Your task to perform on an android device: Toggle notifications for the Google Maps app Image 0: 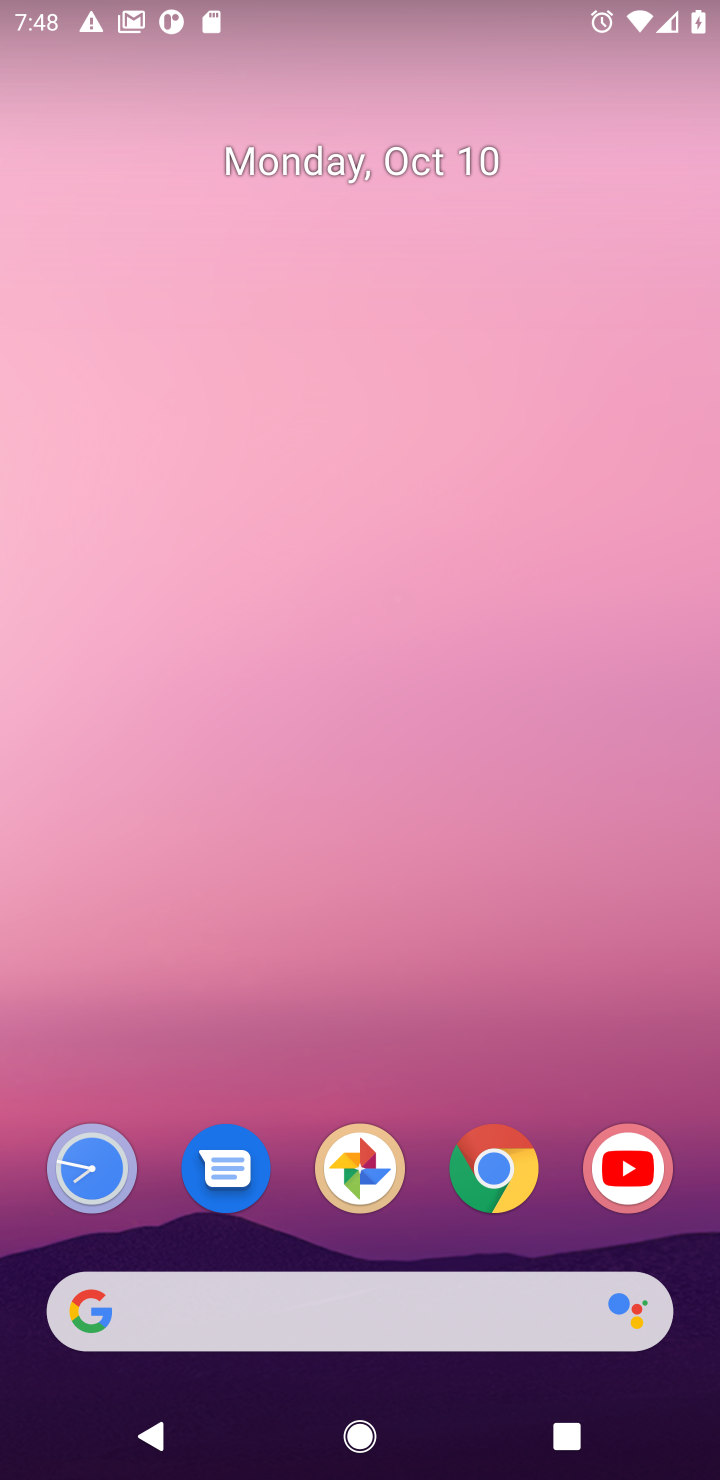
Step 0: drag from (432, 1114) to (333, 68)
Your task to perform on an android device: Toggle notifications for the Google Maps app Image 1: 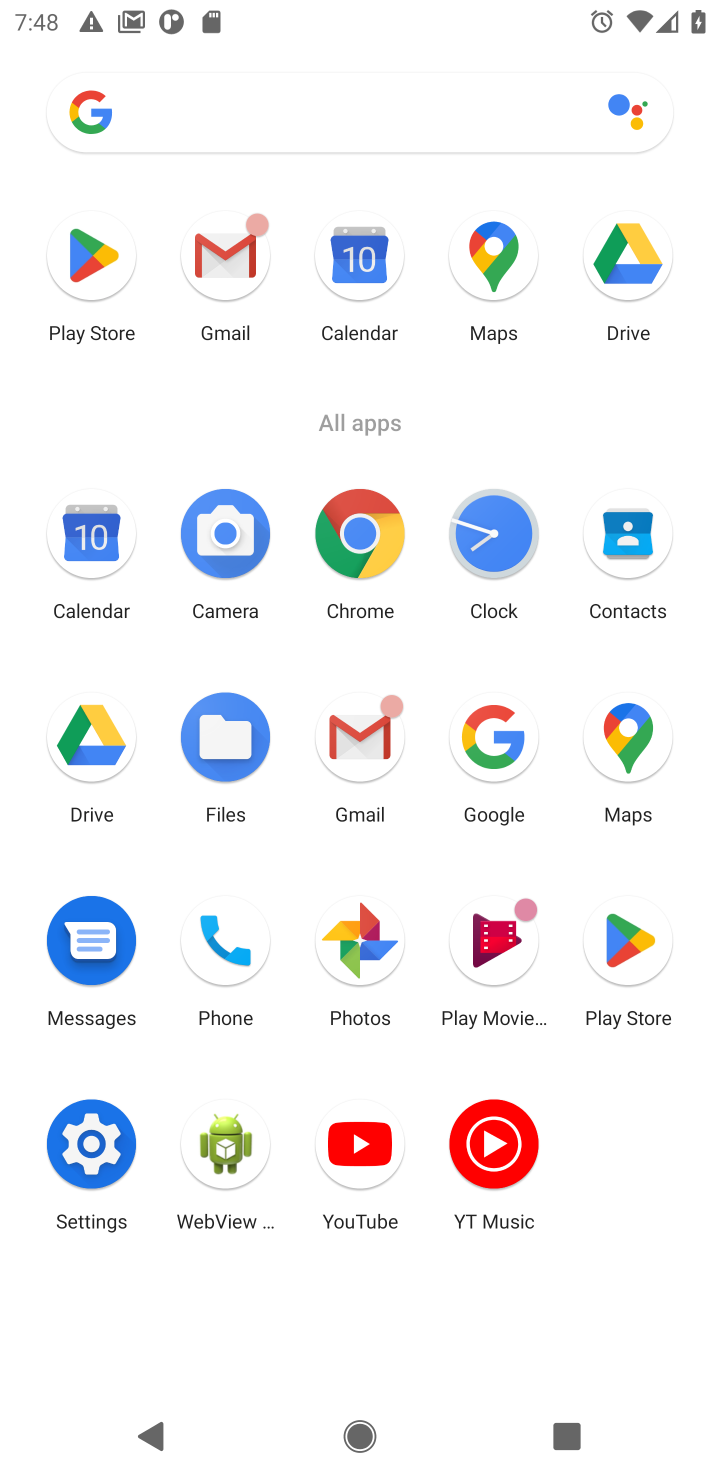
Step 1: click (491, 251)
Your task to perform on an android device: Toggle notifications for the Google Maps app Image 2: 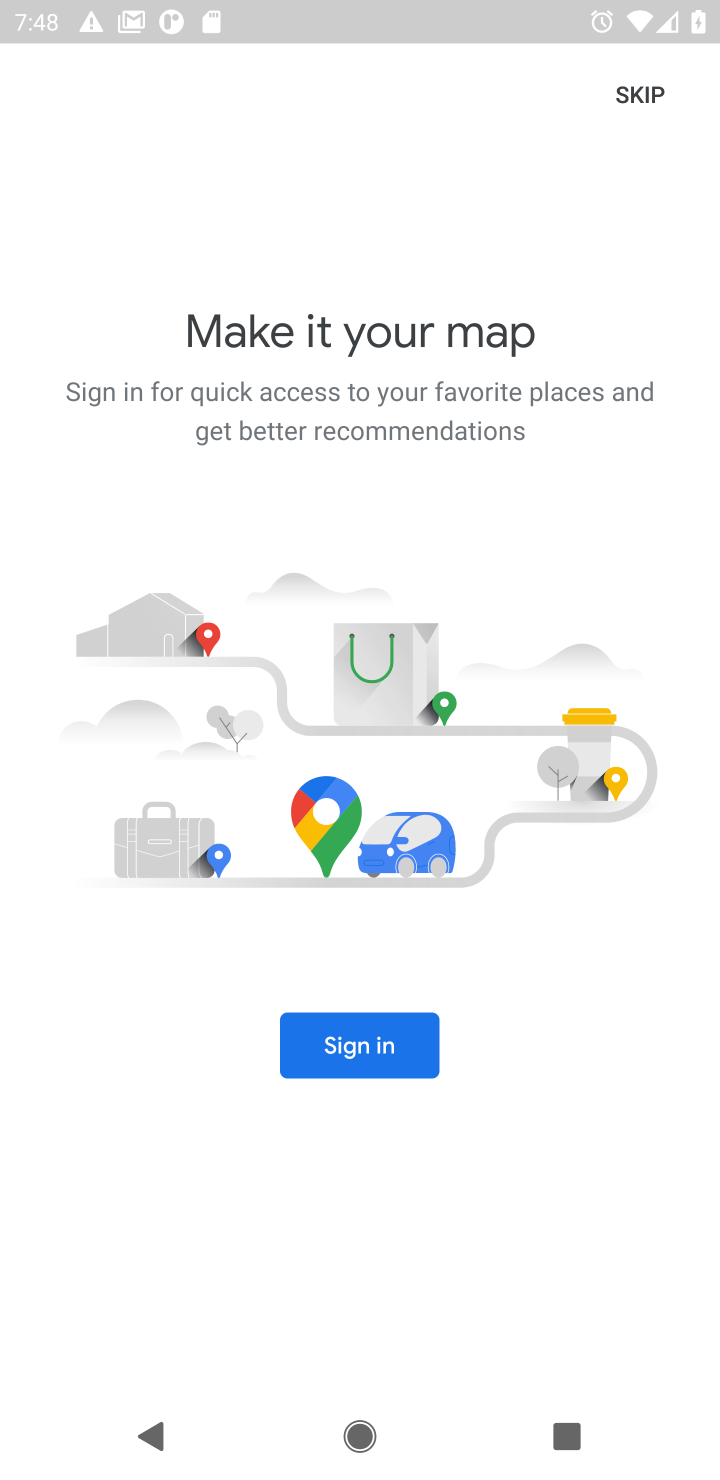
Step 2: click (624, 105)
Your task to perform on an android device: Toggle notifications for the Google Maps app Image 3: 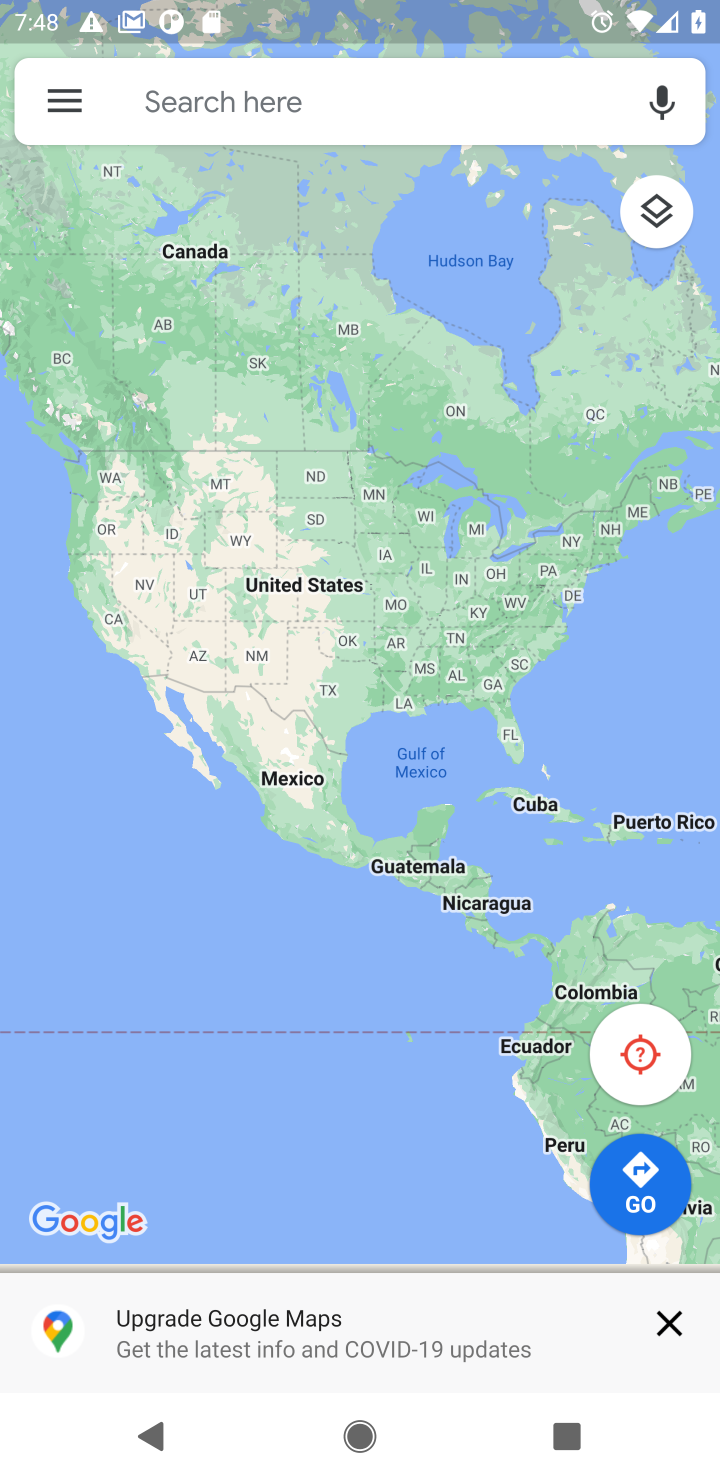
Step 3: click (61, 115)
Your task to perform on an android device: Toggle notifications for the Google Maps app Image 4: 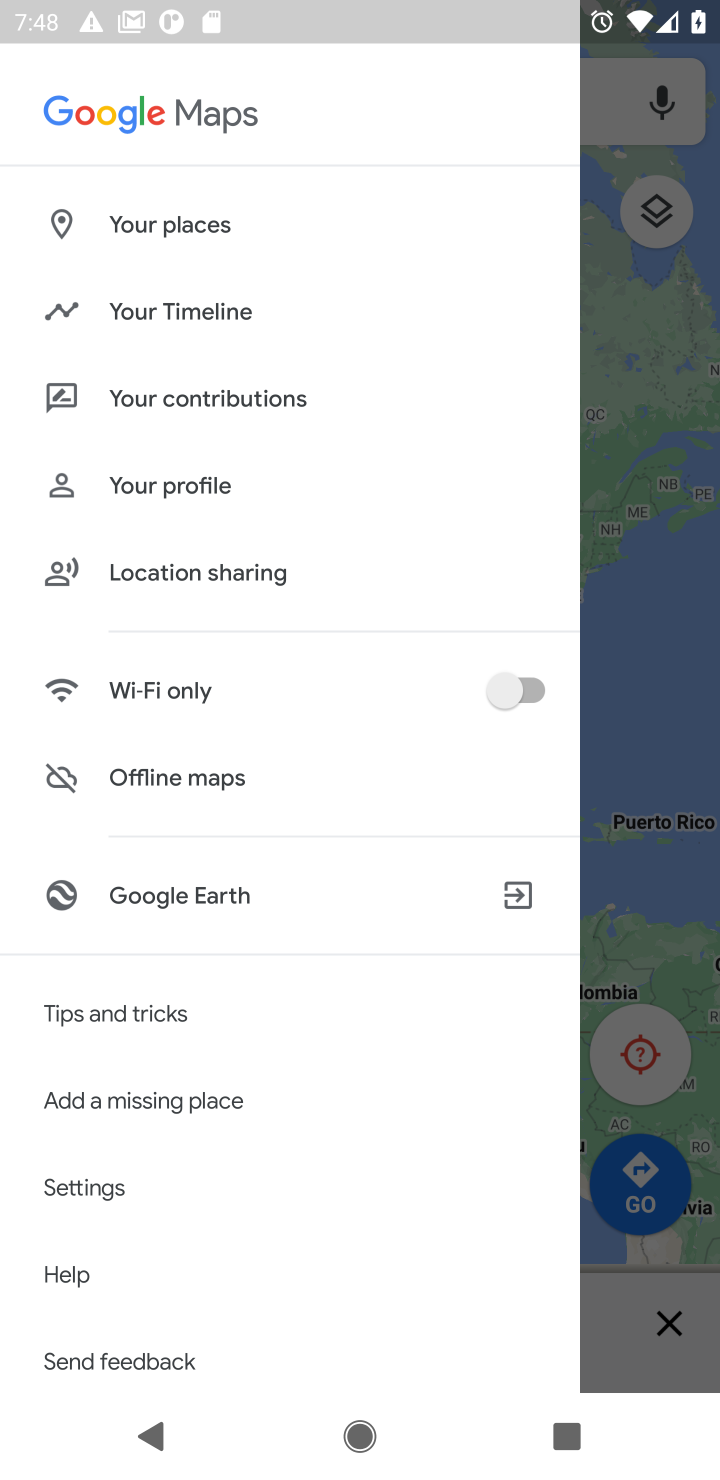
Step 4: drag from (217, 982) to (180, 530)
Your task to perform on an android device: Toggle notifications for the Google Maps app Image 5: 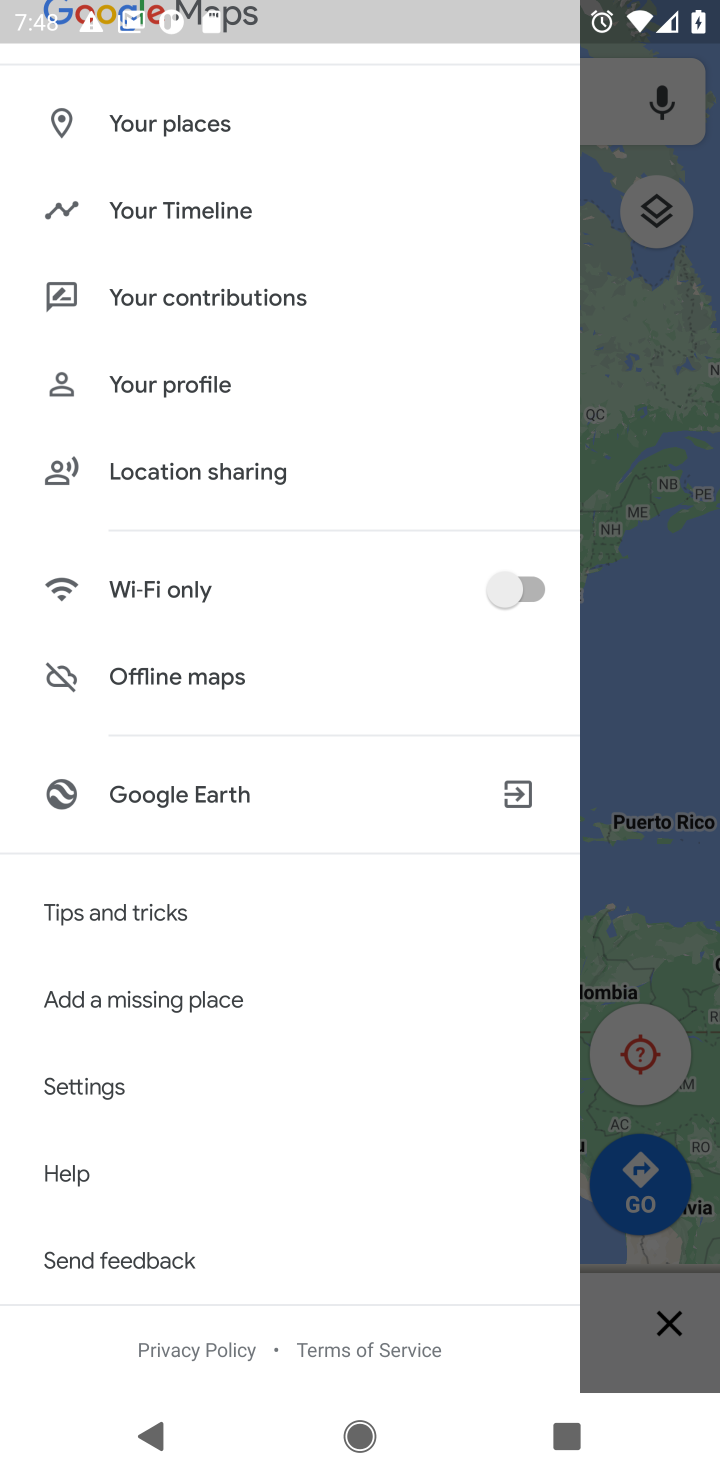
Step 5: click (91, 1087)
Your task to perform on an android device: Toggle notifications for the Google Maps app Image 6: 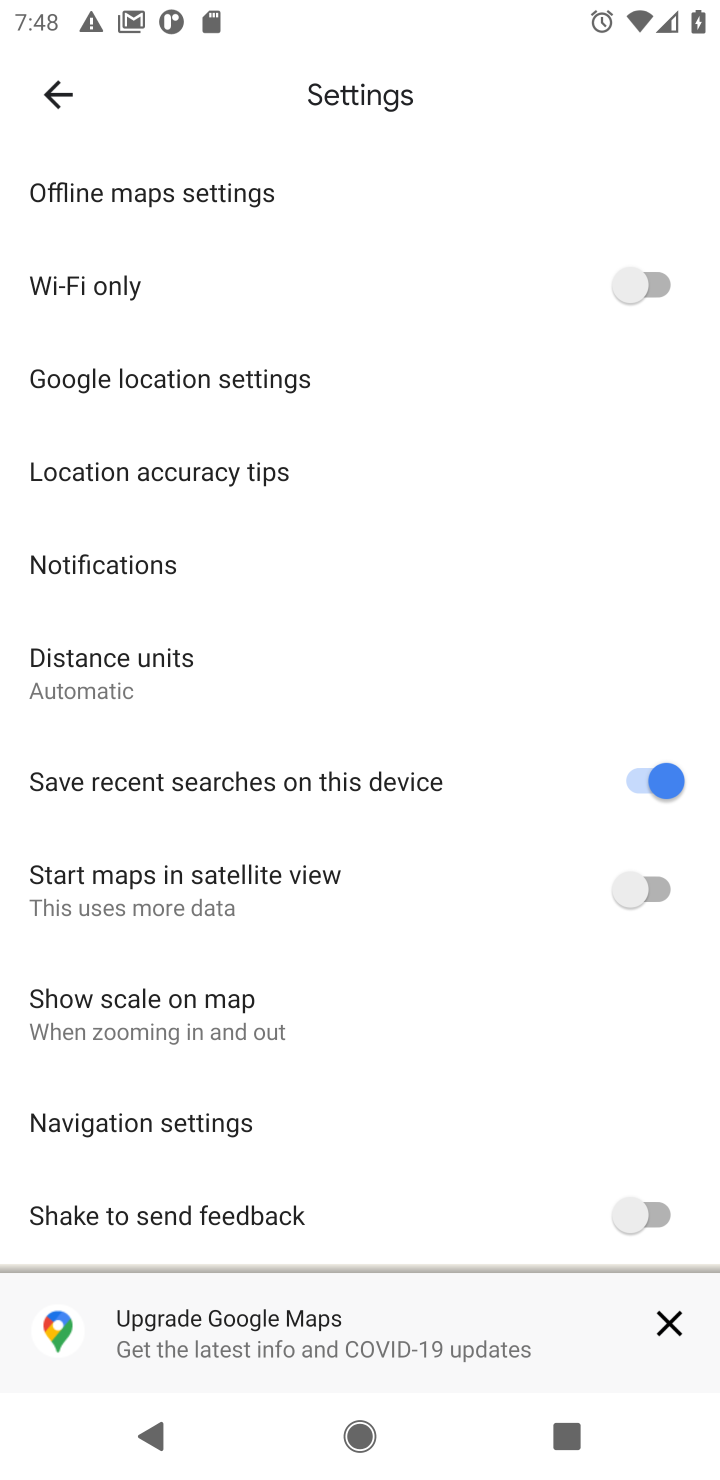
Step 6: click (87, 565)
Your task to perform on an android device: Toggle notifications for the Google Maps app Image 7: 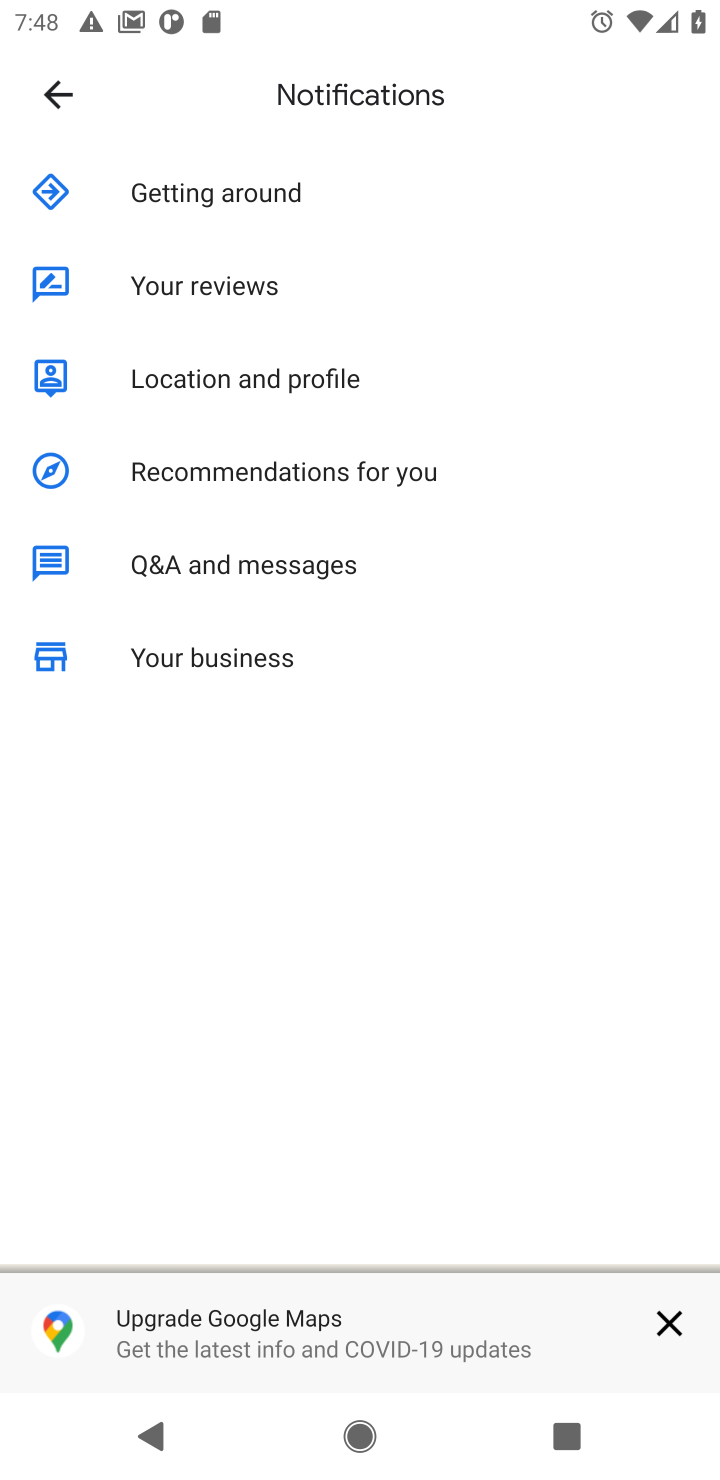
Step 7: click (54, 93)
Your task to perform on an android device: Toggle notifications for the Google Maps app Image 8: 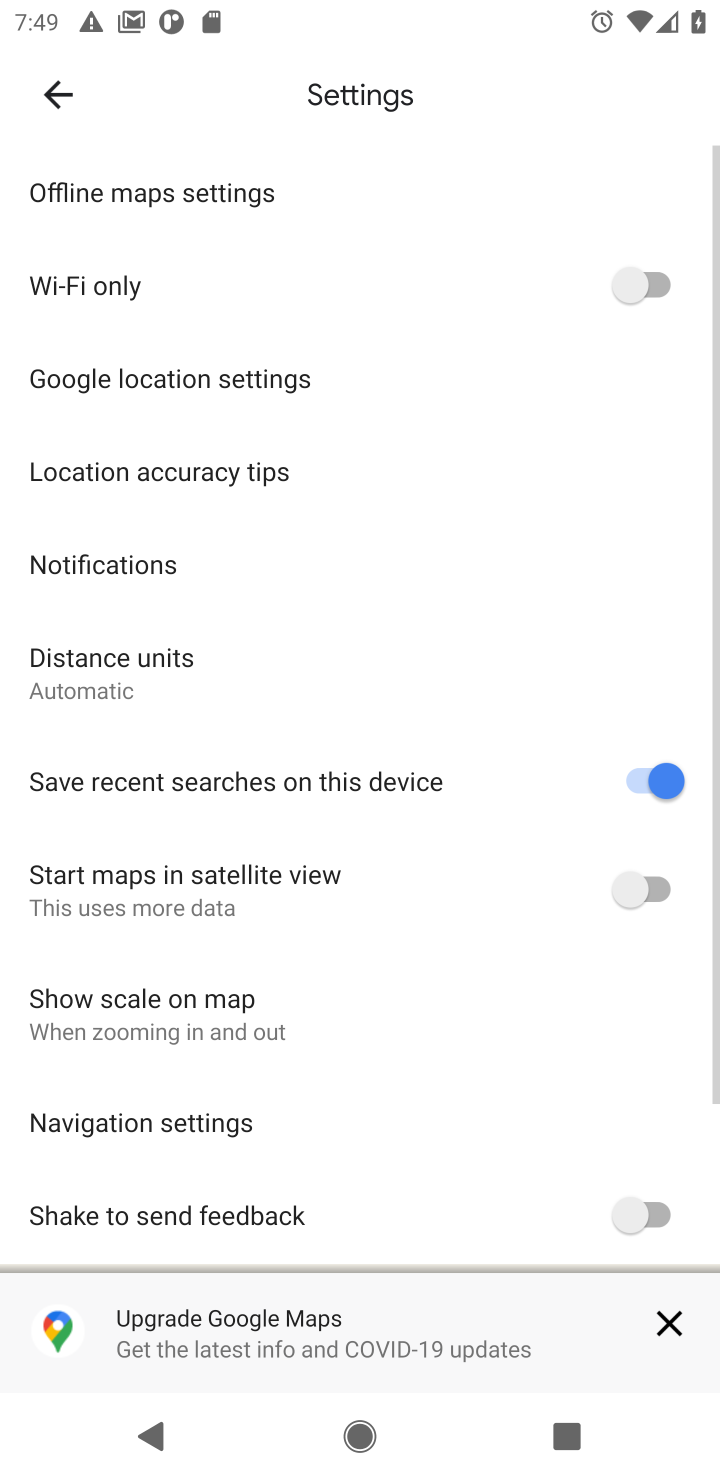
Step 8: drag from (155, 1003) to (163, 438)
Your task to perform on an android device: Toggle notifications for the Google Maps app Image 9: 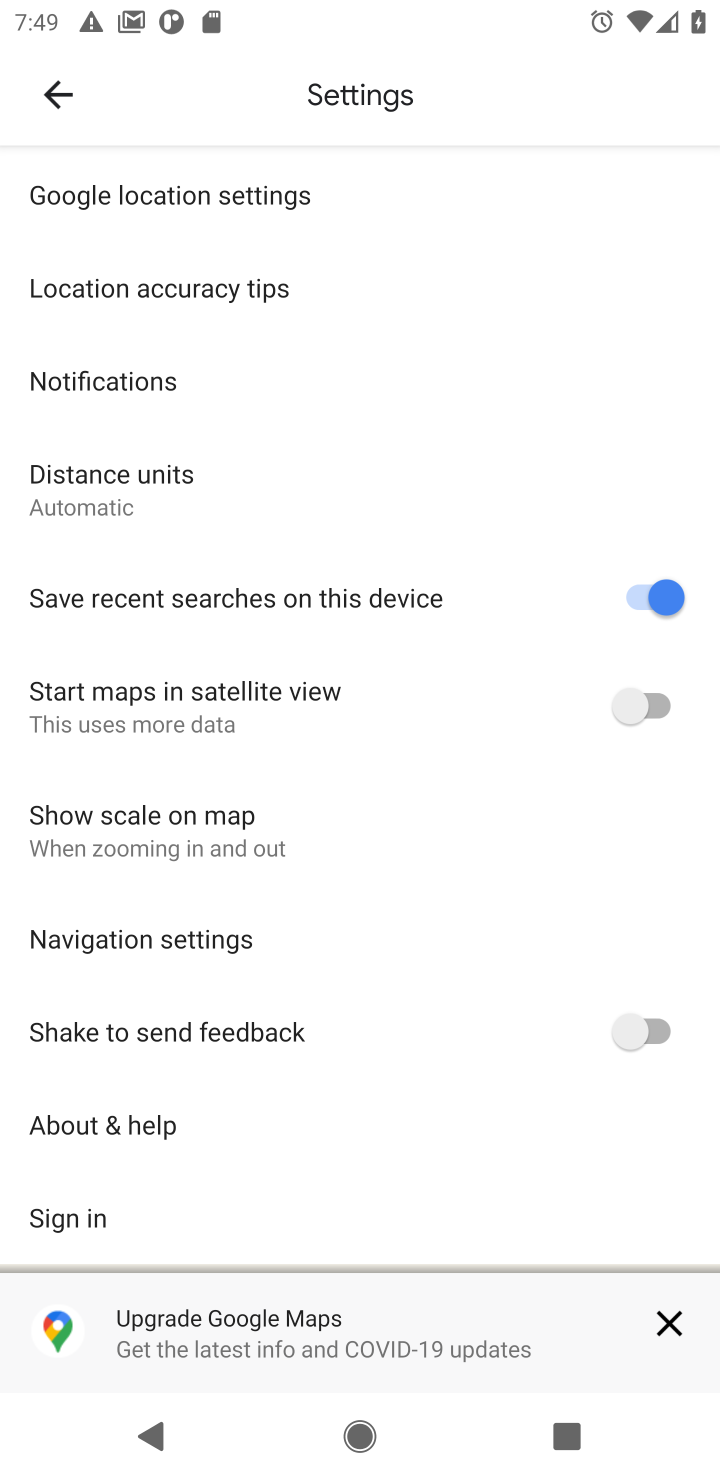
Step 9: drag from (125, 1087) to (163, 573)
Your task to perform on an android device: Toggle notifications for the Google Maps app Image 10: 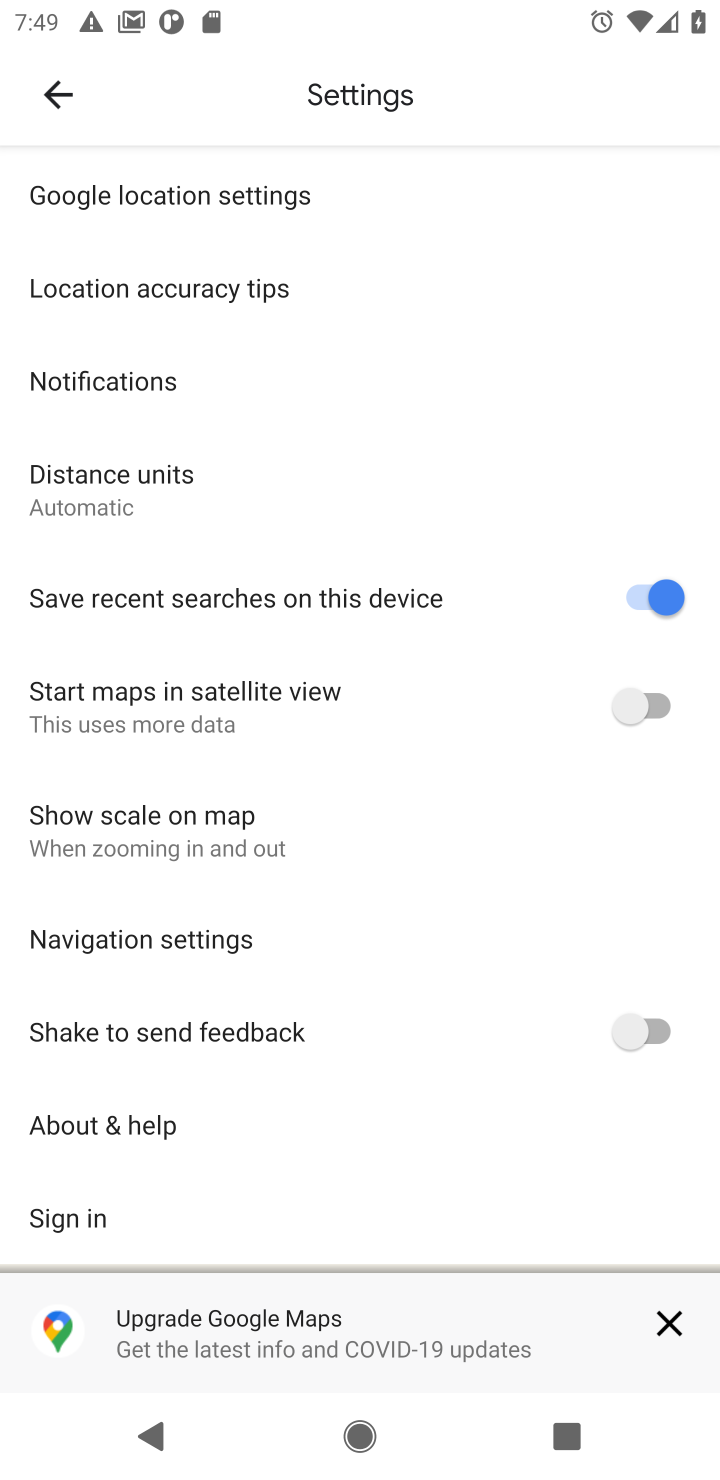
Step 10: drag from (161, 429) to (171, 1201)
Your task to perform on an android device: Toggle notifications for the Google Maps app Image 11: 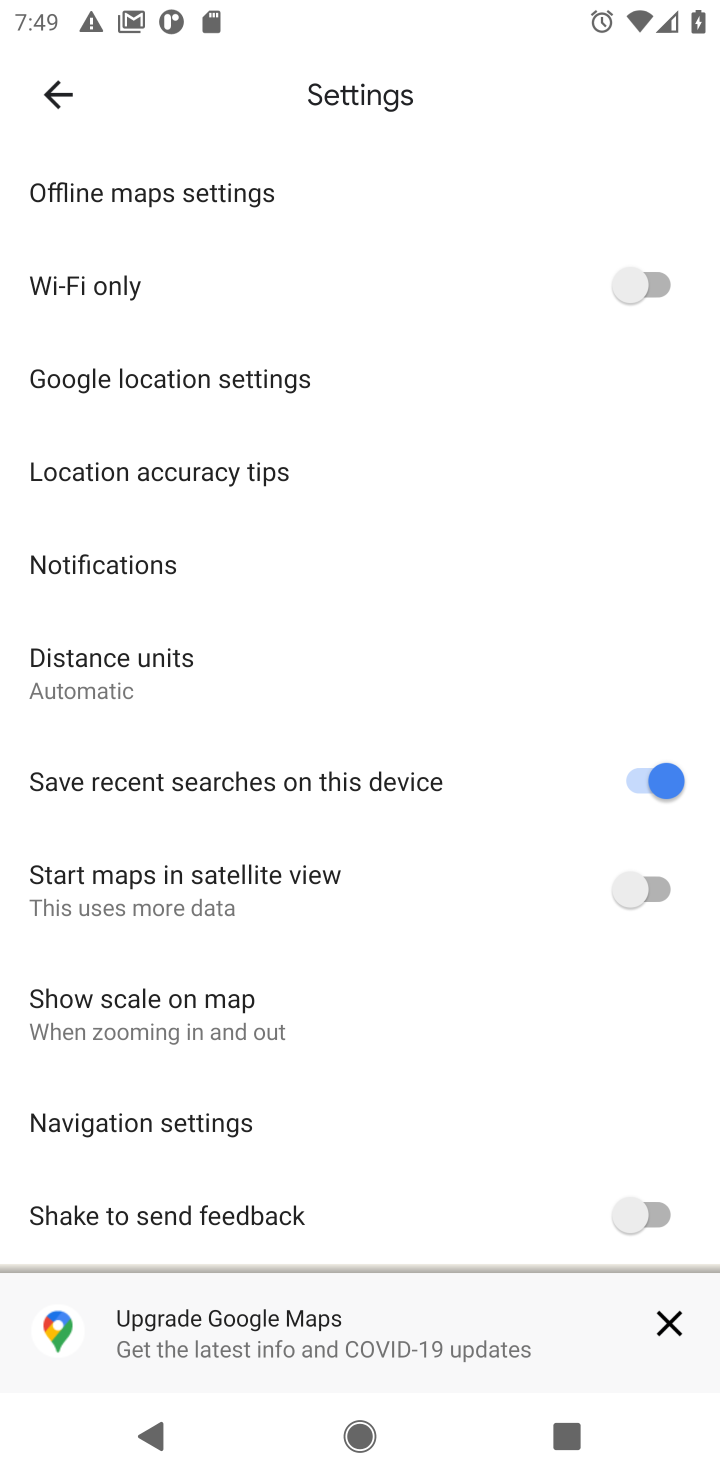
Step 11: click (53, 96)
Your task to perform on an android device: Toggle notifications for the Google Maps app Image 12: 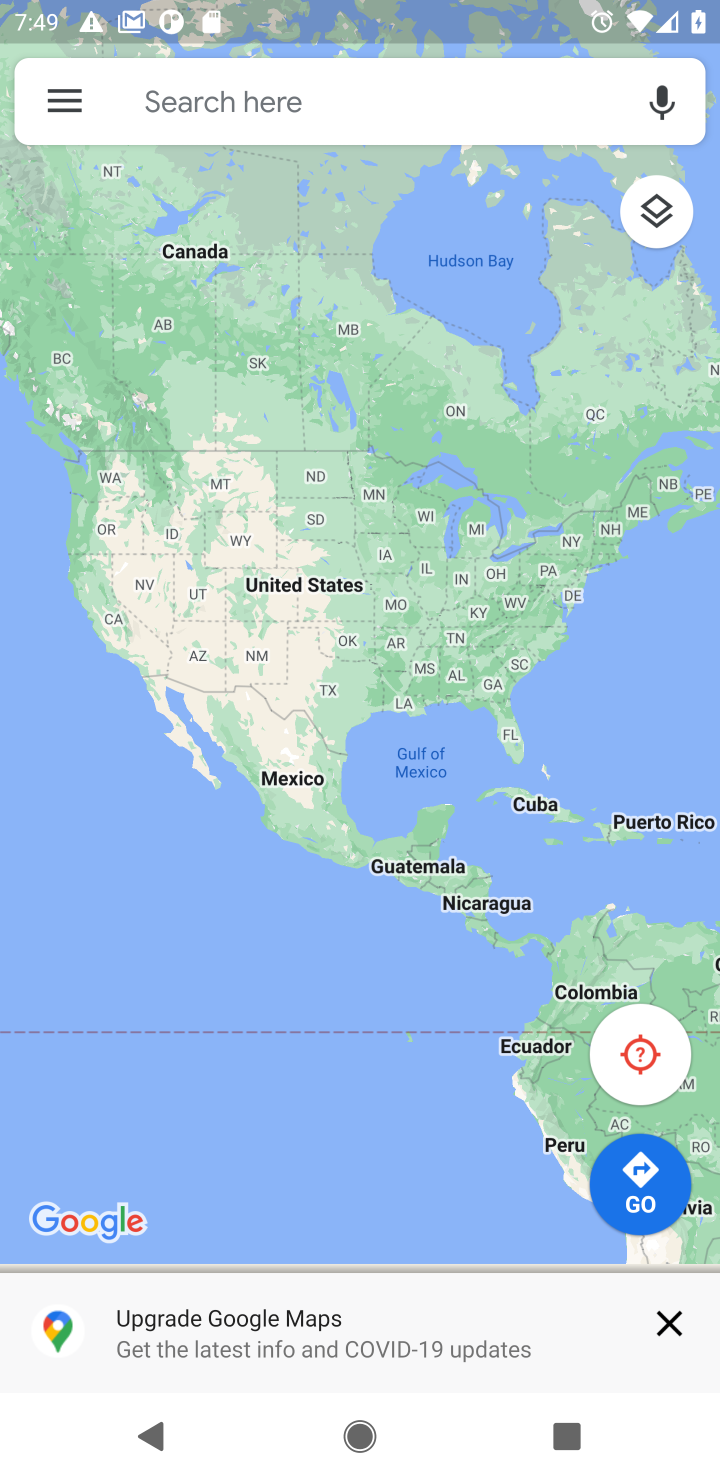
Step 12: click (66, 99)
Your task to perform on an android device: Toggle notifications for the Google Maps app Image 13: 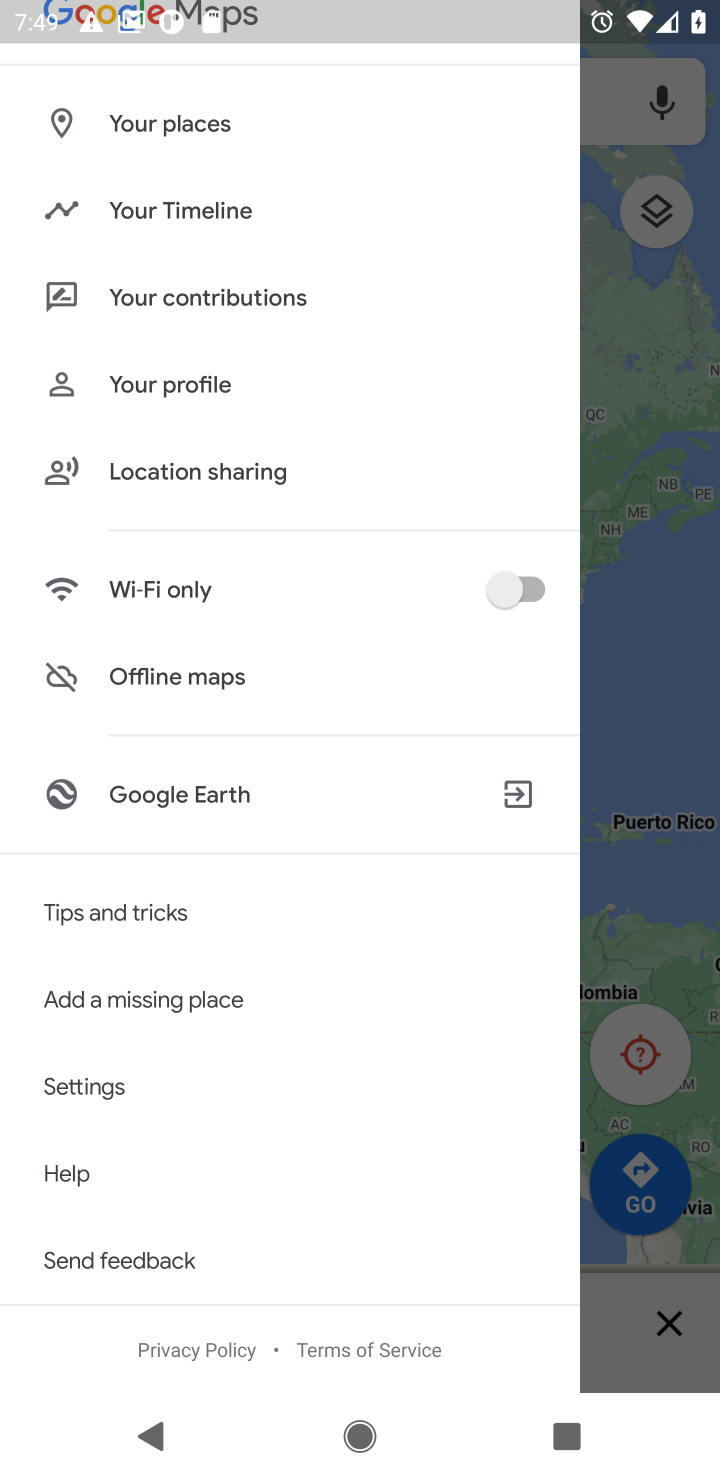
Step 13: click (194, 206)
Your task to perform on an android device: Toggle notifications for the Google Maps app Image 14: 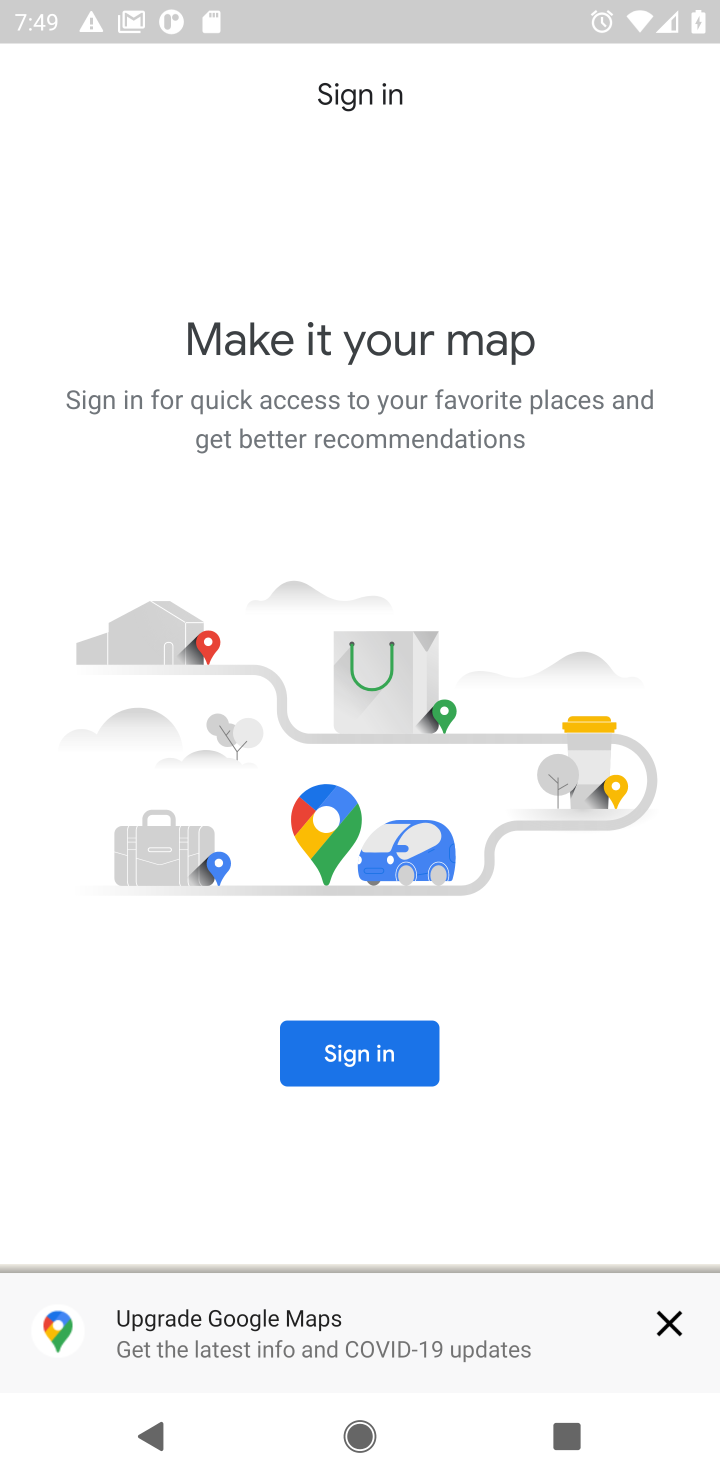
Step 14: click (365, 100)
Your task to perform on an android device: Toggle notifications for the Google Maps app Image 15: 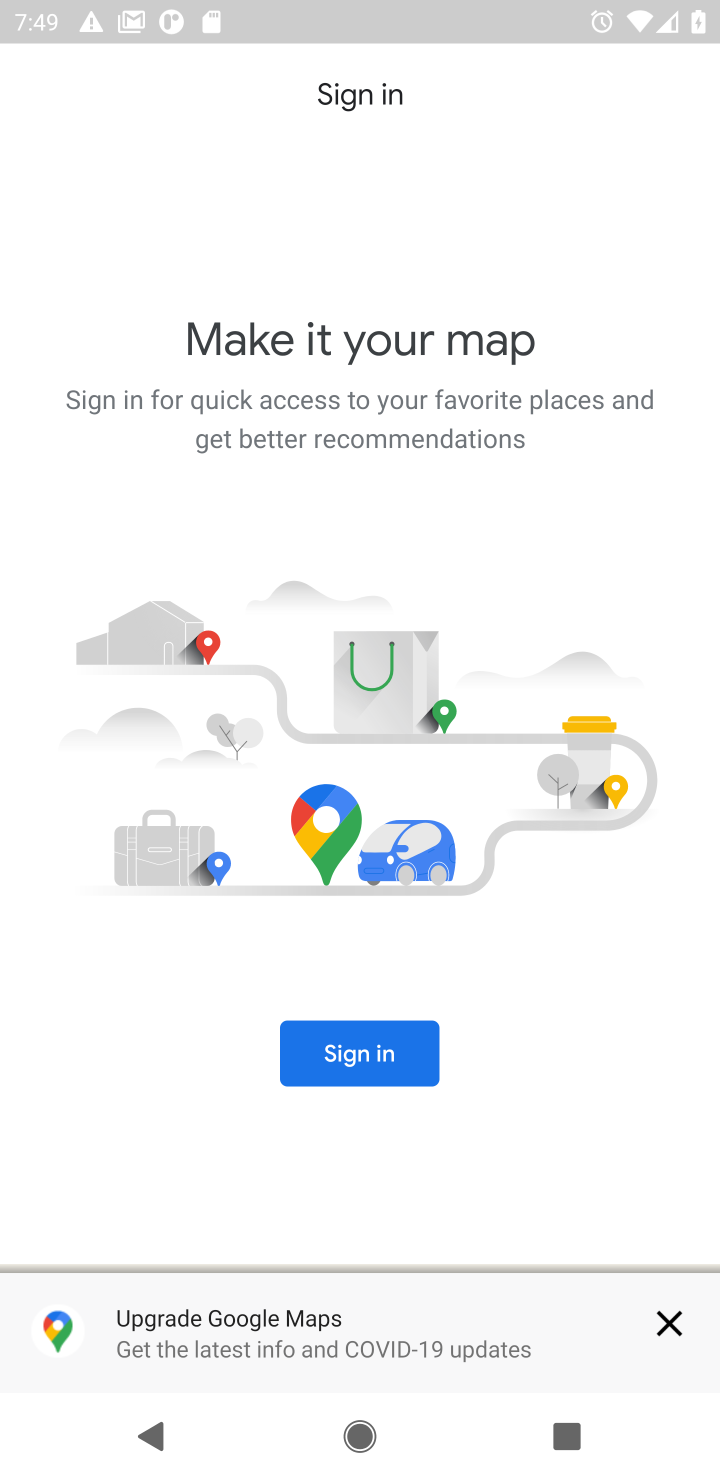
Step 15: click (332, 94)
Your task to perform on an android device: Toggle notifications for the Google Maps app Image 16: 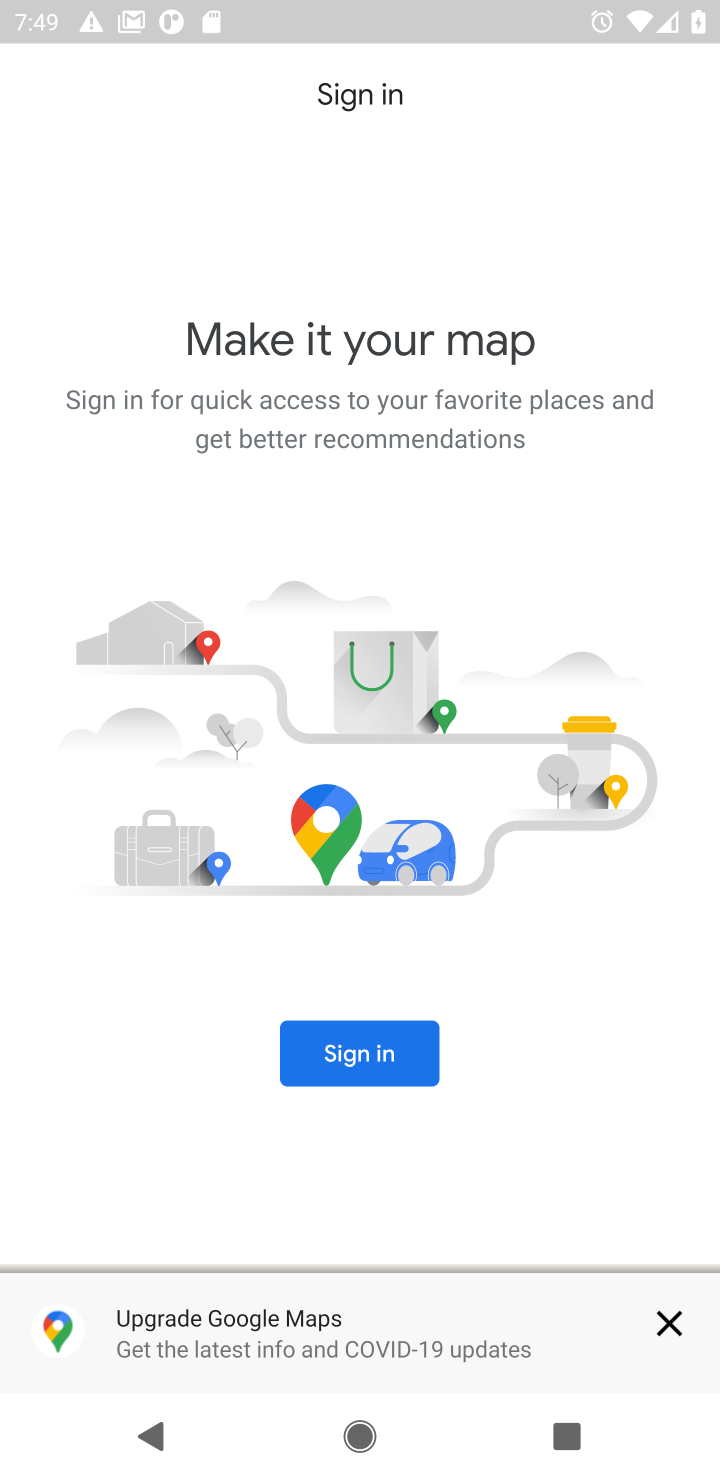
Step 16: click (672, 1331)
Your task to perform on an android device: Toggle notifications for the Google Maps app Image 17: 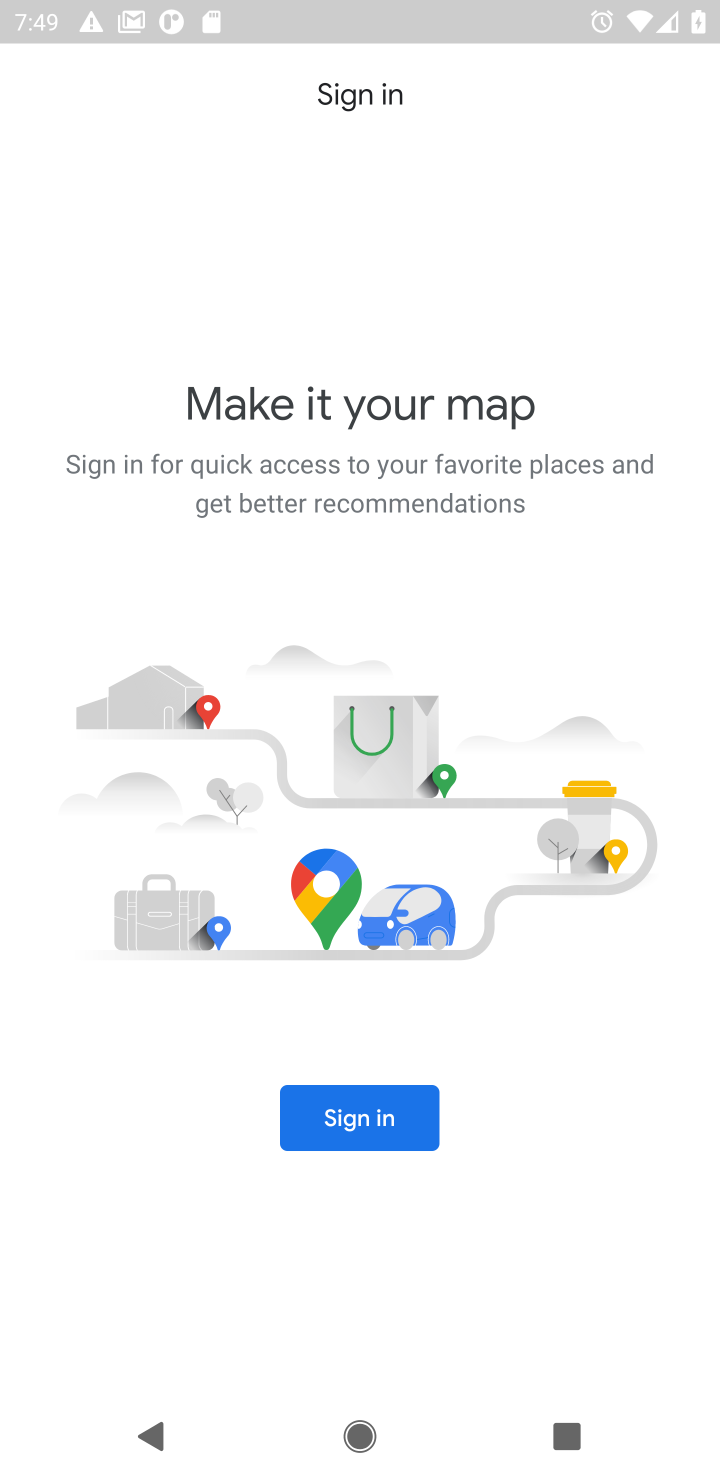
Step 17: press back button
Your task to perform on an android device: Toggle notifications for the Google Maps app Image 18: 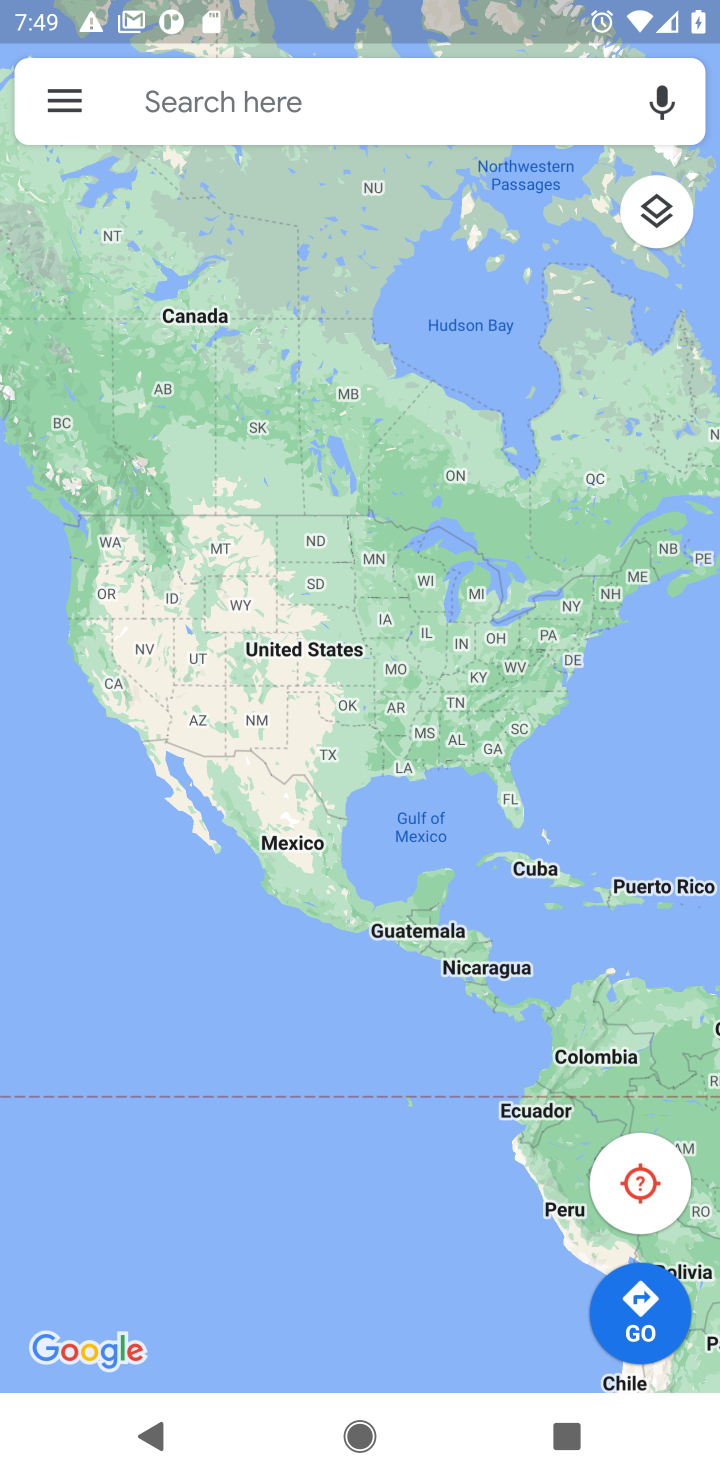
Step 18: click (64, 110)
Your task to perform on an android device: Toggle notifications for the Google Maps app Image 19: 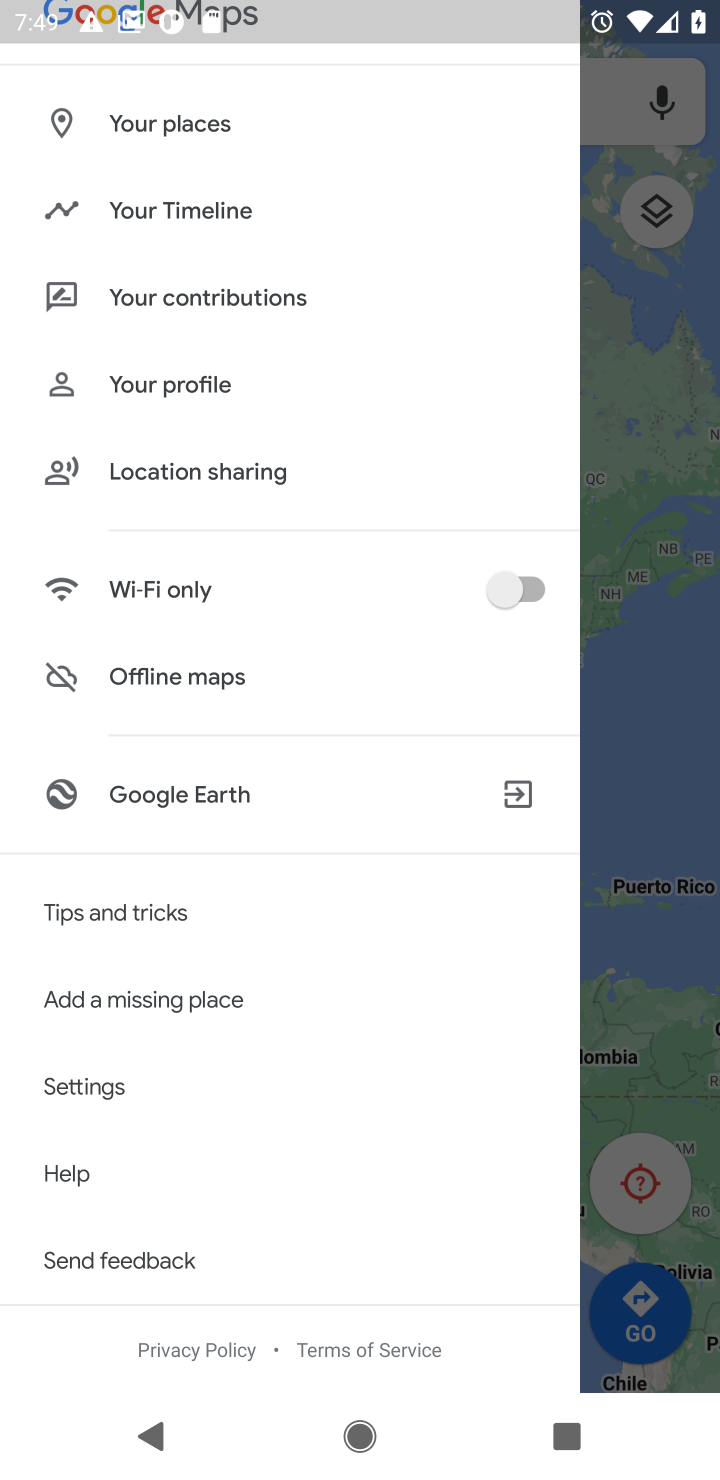
Step 19: drag from (217, 858) to (248, 377)
Your task to perform on an android device: Toggle notifications for the Google Maps app Image 20: 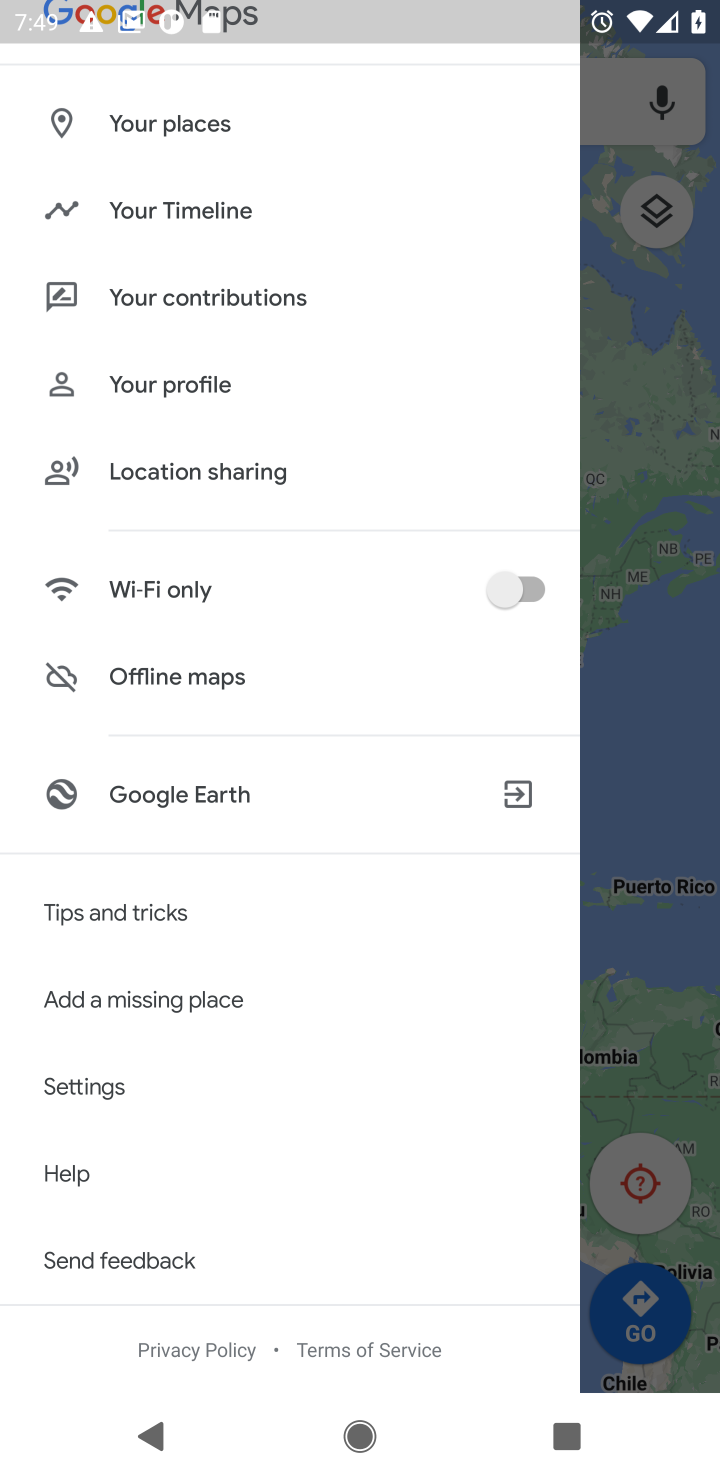
Step 20: click (92, 1083)
Your task to perform on an android device: Toggle notifications for the Google Maps app Image 21: 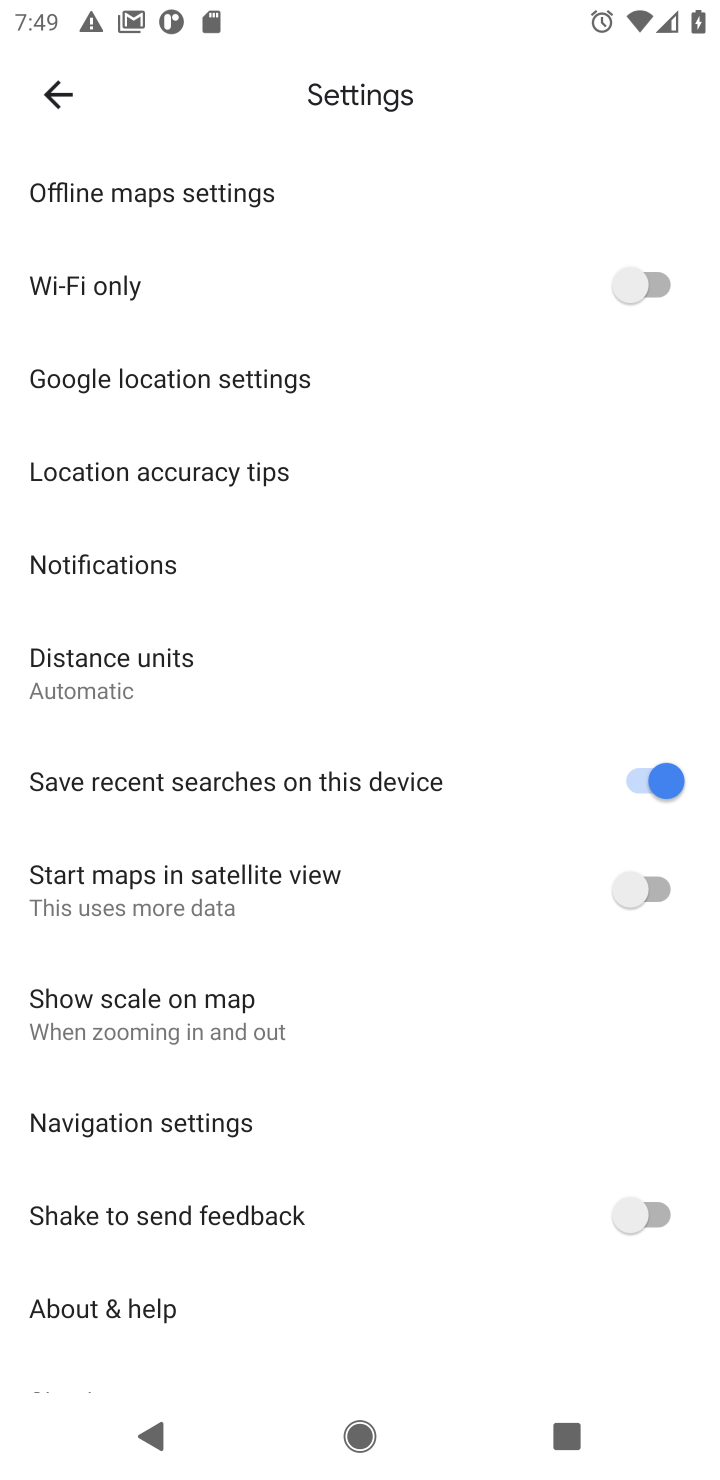
Step 21: drag from (214, 833) to (181, 423)
Your task to perform on an android device: Toggle notifications for the Google Maps app Image 22: 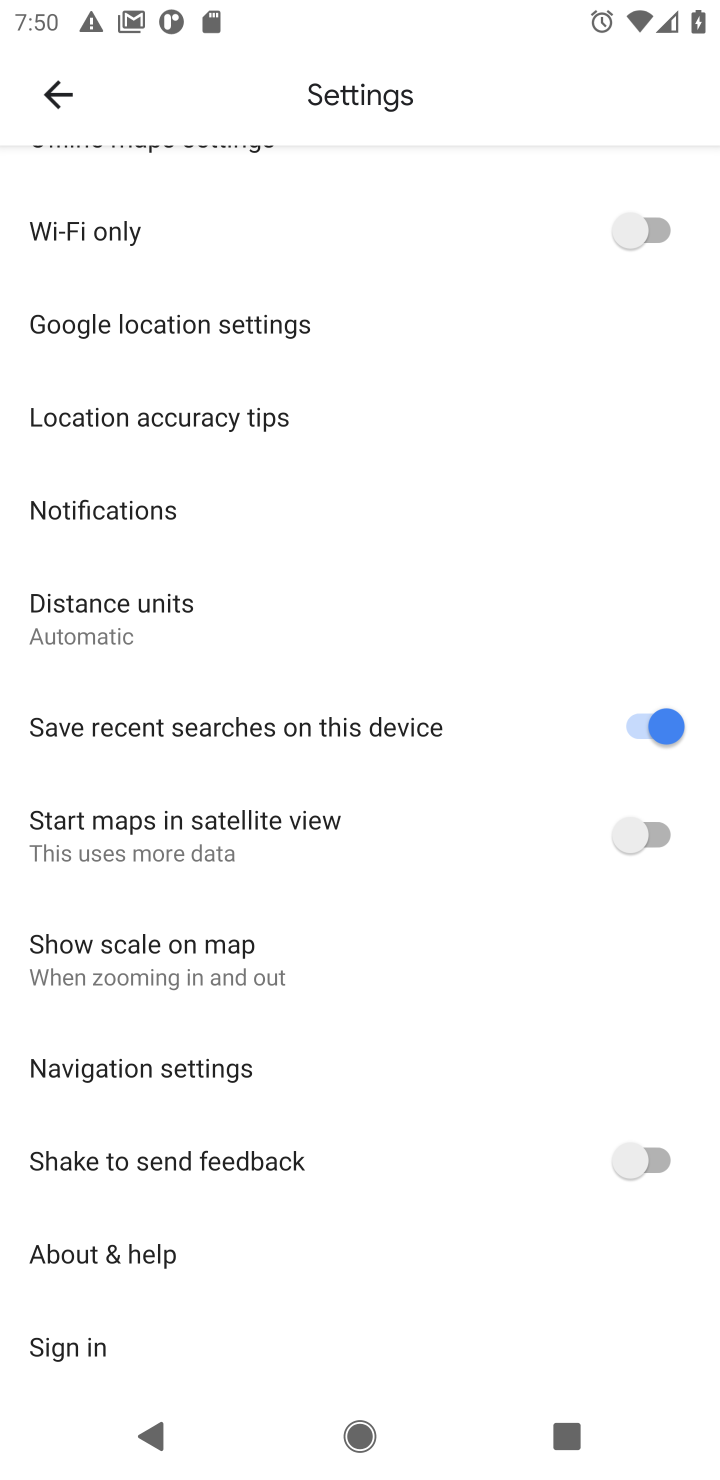
Step 22: click (101, 511)
Your task to perform on an android device: Toggle notifications for the Google Maps app Image 23: 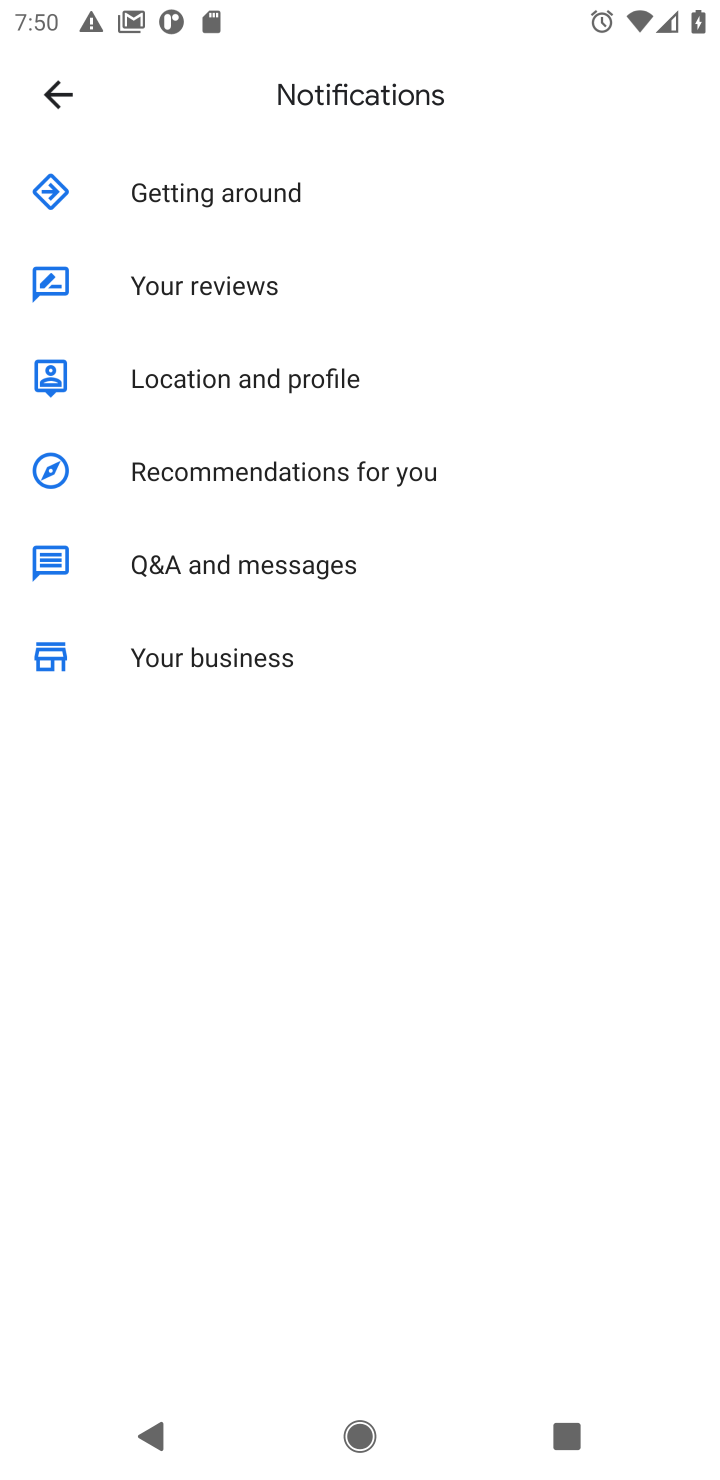
Step 23: task complete